Your task to perform on an android device: change notification settings in the gmail app Image 0: 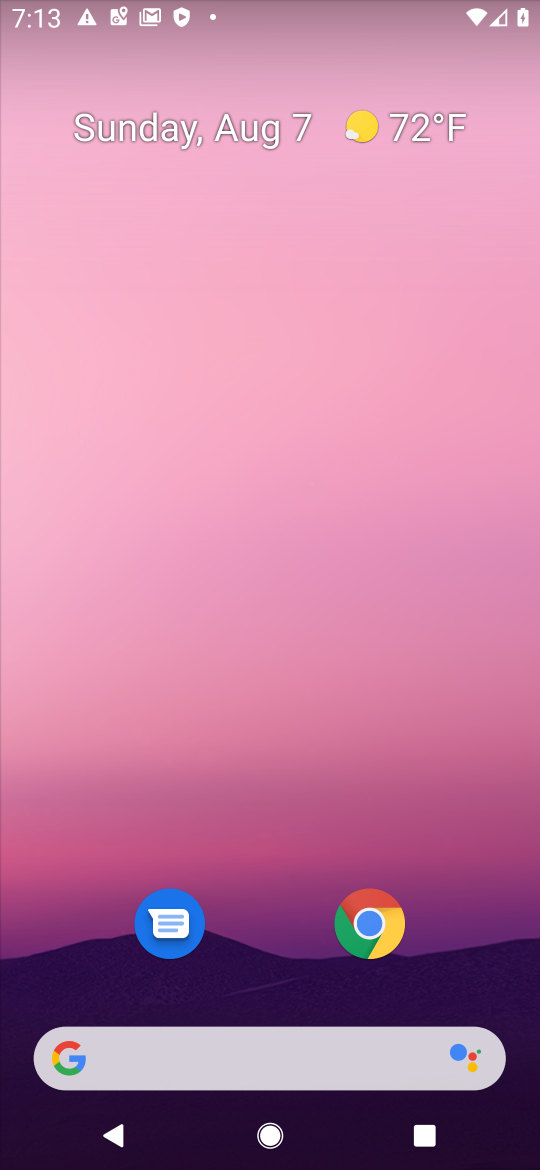
Step 0: drag from (517, 971) to (233, 56)
Your task to perform on an android device: change notification settings in the gmail app Image 1: 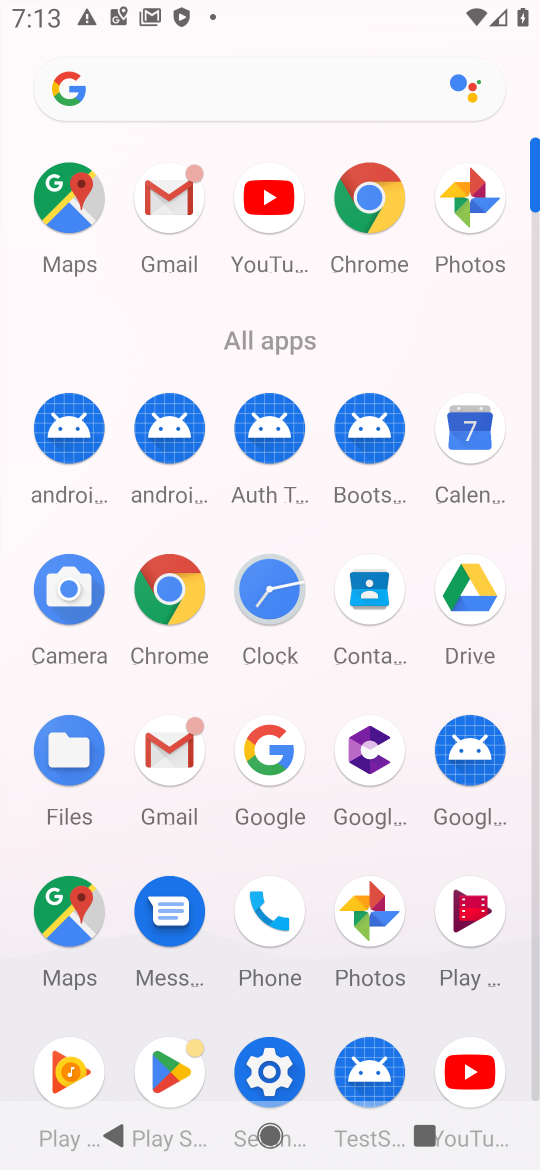
Step 1: click (146, 760)
Your task to perform on an android device: change notification settings in the gmail app Image 2: 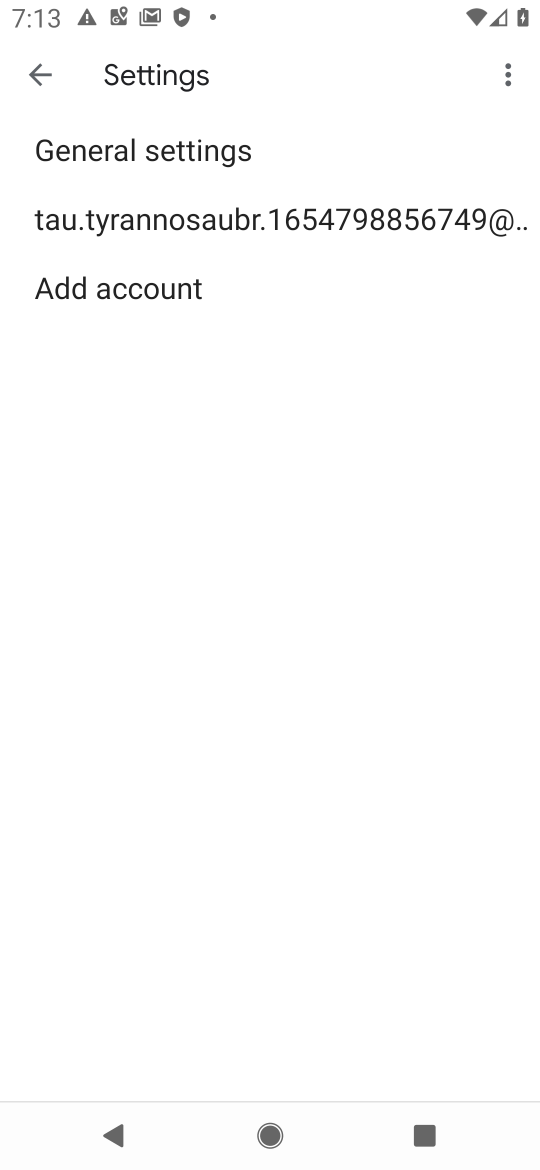
Step 2: click (297, 226)
Your task to perform on an android device: change notification settings in the gmail app Image 3: 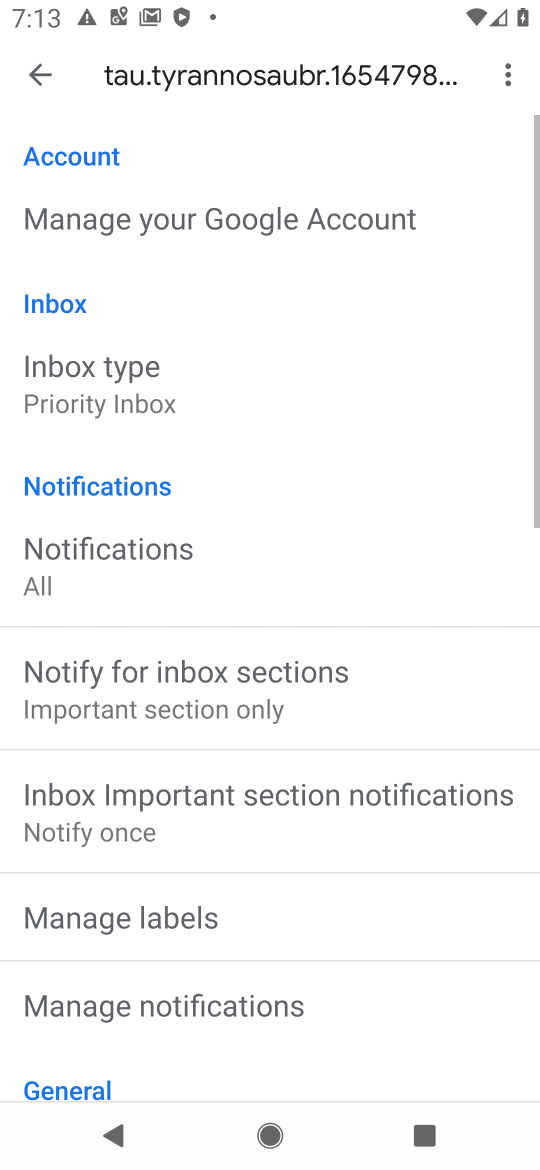
Step 3: click (65, 553)
Your task to perform on an android device: change notification settings in the gmail app Image 4: 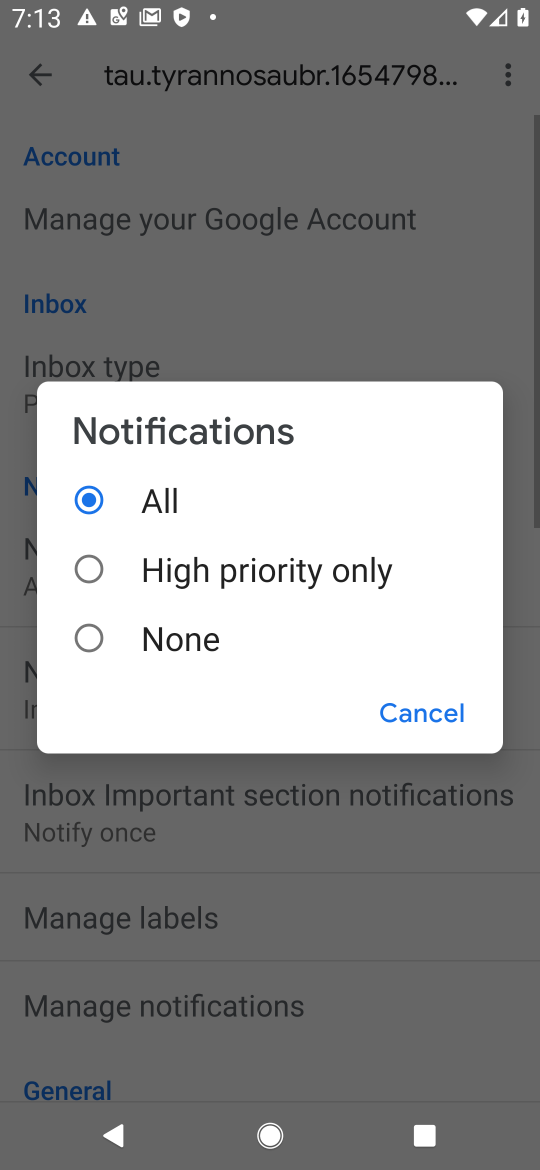
Step 4: click (175, 591)
Your task to perform on an android device: change notification settings in the gmail app Image 5: 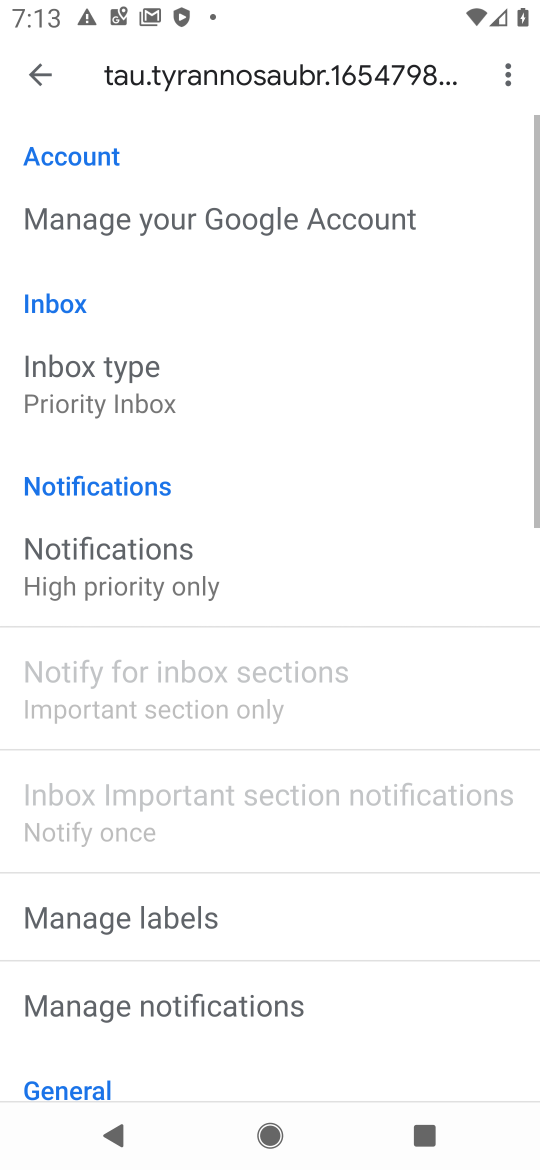
Step 5: task complete